Your task to perform on an android device: set an alarm Image 0: 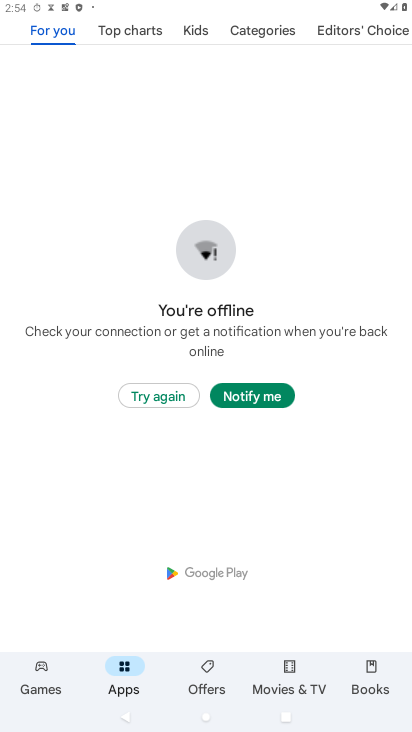
Step 0: press home button
Your task to perform on an android device: set an alarm Image 1: 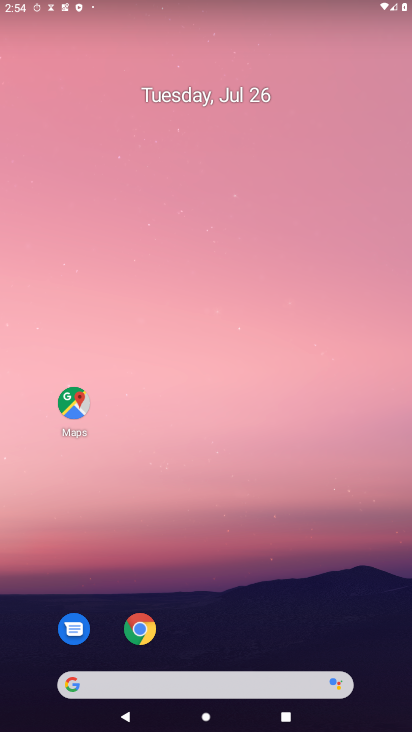
Step 1: drag from (250, 670) to (288, 1)
Your task to perform on an android device: set an alarm Image 2: 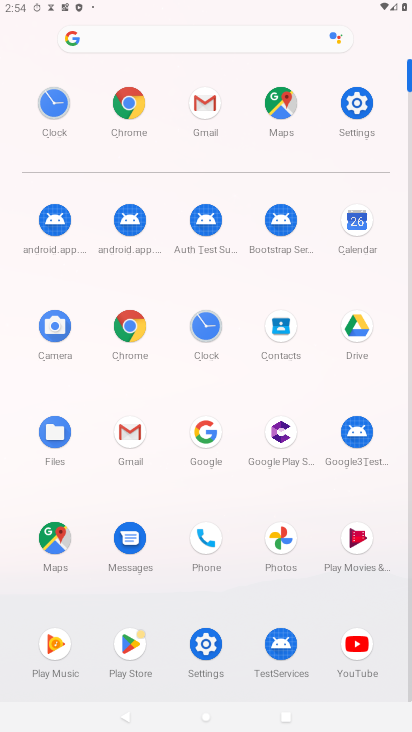
Step 2: click (212, 322)
Your task to perform on an android device: set an alarm Image 3: 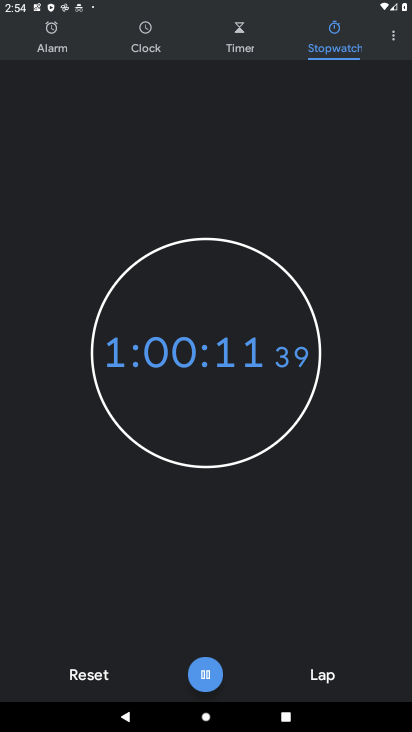
Step 3: click (59, 35)
Your task to perform on an android device: set an alarm Image 4: 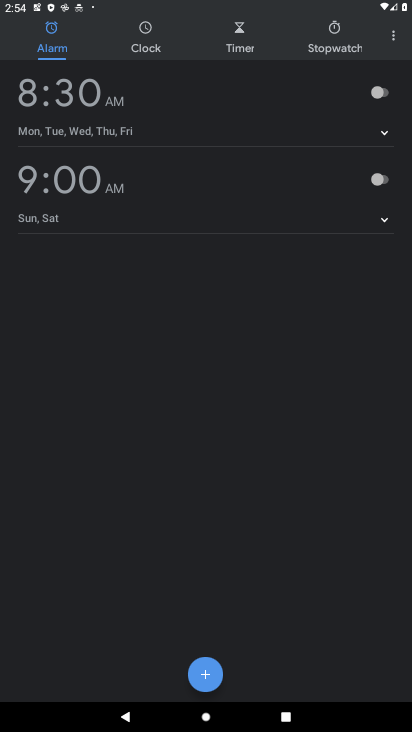
Step 4: click (386, 93)
Your task to perform on an android device: set an alarm Image 5: 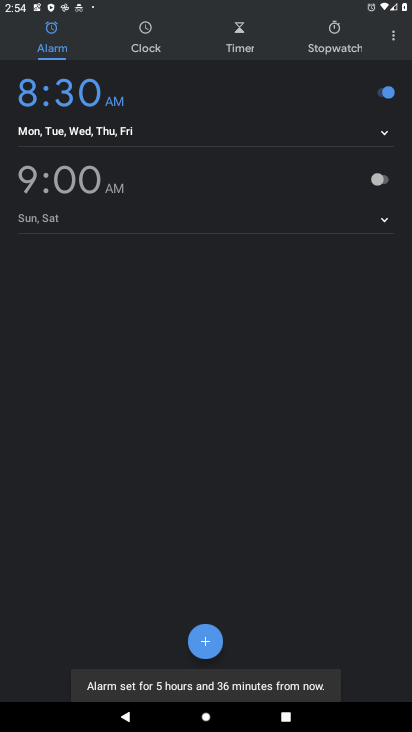
Step 5: task complete